Your task to perform on an android device: Search for seafood restaurants on Google Maps Image 0: 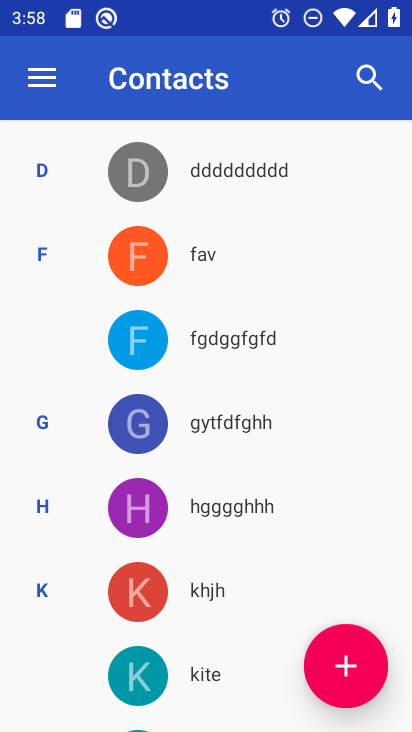
Step 0: press home button
Your task to perform on an android device: Search for seafood restaurants on Google Maps Image 1: 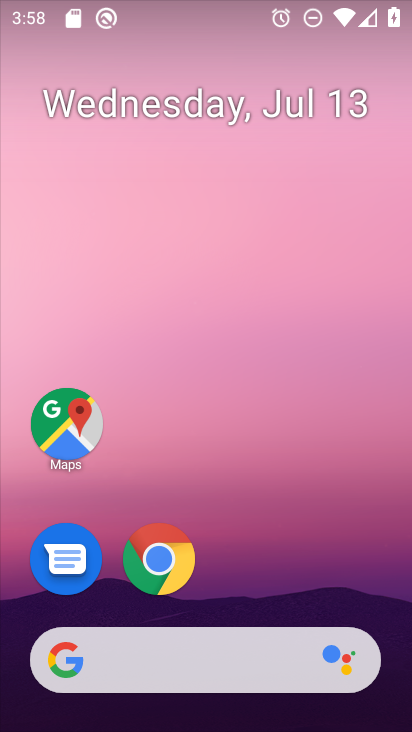
Step 1: drag from (359, 579) to (356, 88)
Your task to perform on an android device: Search for seafood restaurants on Google Maps Image 2: 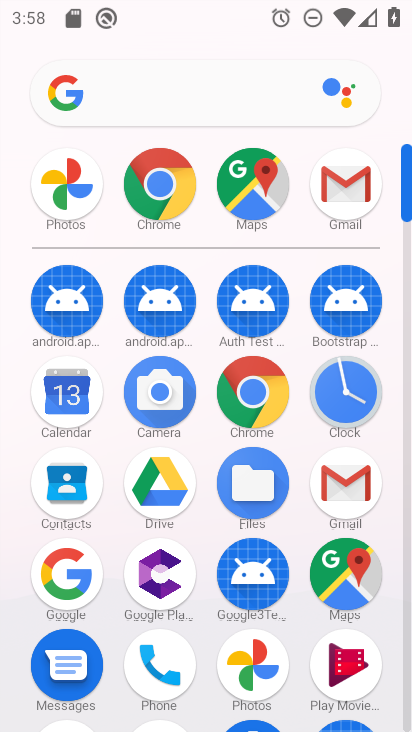
Step 2: click (341, 564)
Your task to perform on an android device: Search for seafood restaurants on Google Maps Image 3: 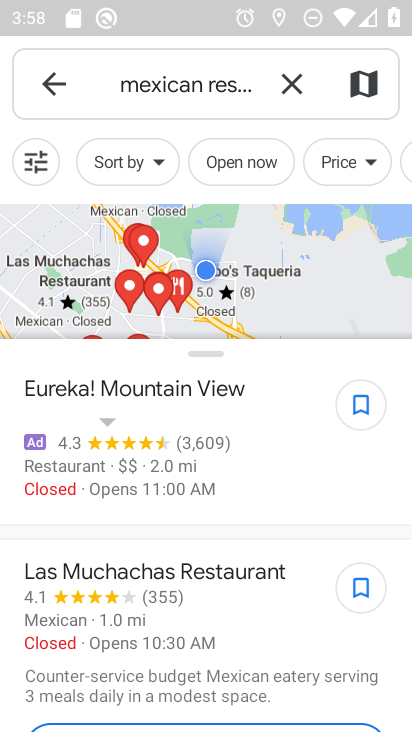
Step 3: press back button
Your task to perform on an android device: Search for seafood restaurants on Google Maps Image 4: 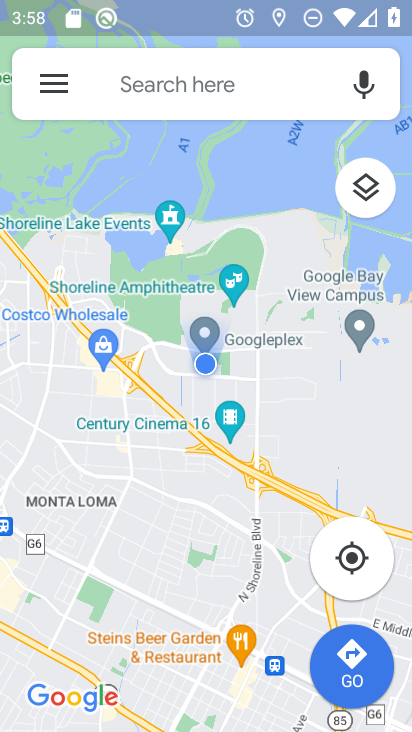
Step 4: click (229, 98)
Your task to perform on an android device: Search for seafood restaurants on Google Maps Image 5: 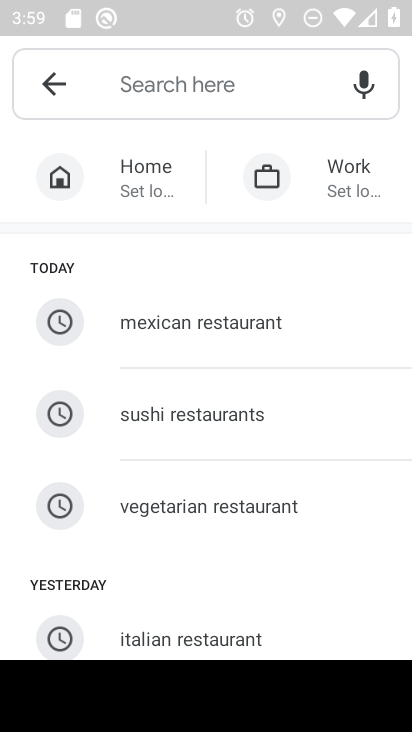
Step 5: type "seafood restaurants"
Your task to perform on an android device: Search for seafood restaurants on Google Maps Image 6: 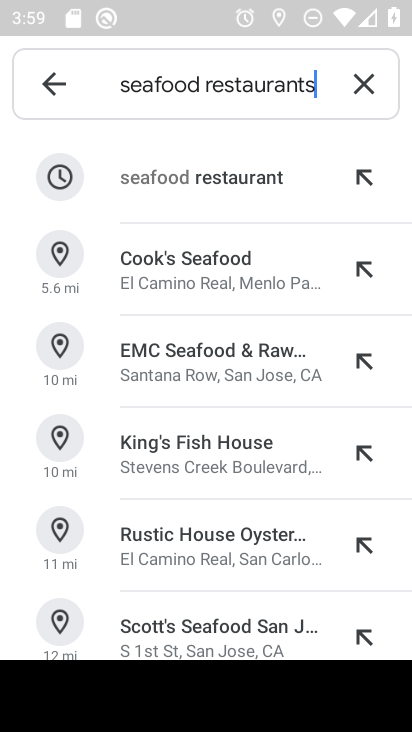
Step 6: click (261, 191)
Your task to perform on an android device: Search for seafood restaurants on Google Maps Image 7: 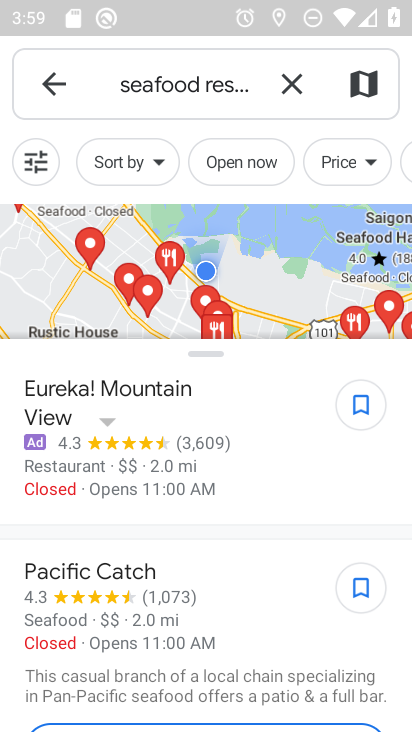
Step 7: task complete